Your task to perform on an android device: Open internet settings Image 0: 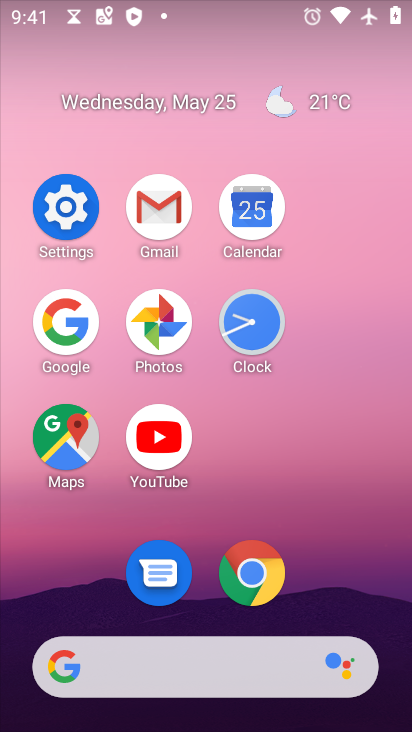
Step 0: click (69, 212)
Your task to perform on an android device: Open internet settings Image 1: 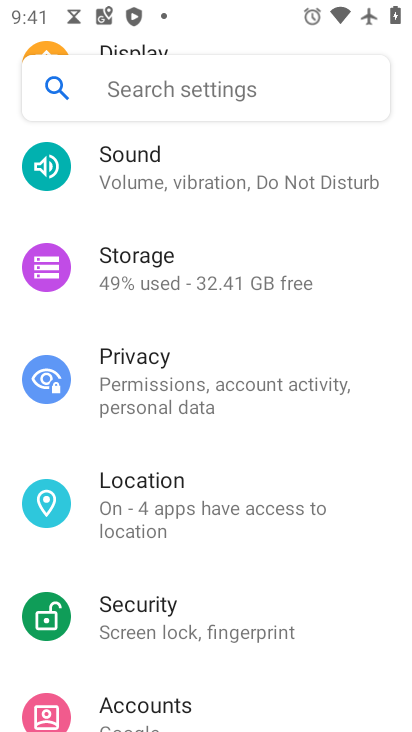
Step 1: drag from (229, 190) to (314, 577)
Your task to perform on an android device: Open internet settings Image 2: 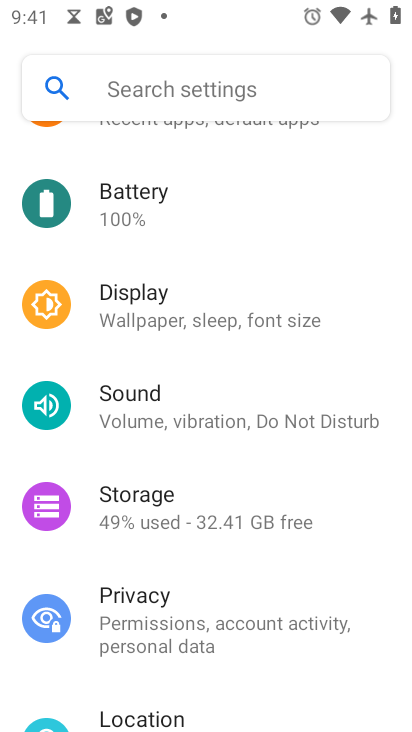
Step 2: drag from (267, 218) to (225, 649)
Your task to perform on an android device: Open internet settings Image 3: 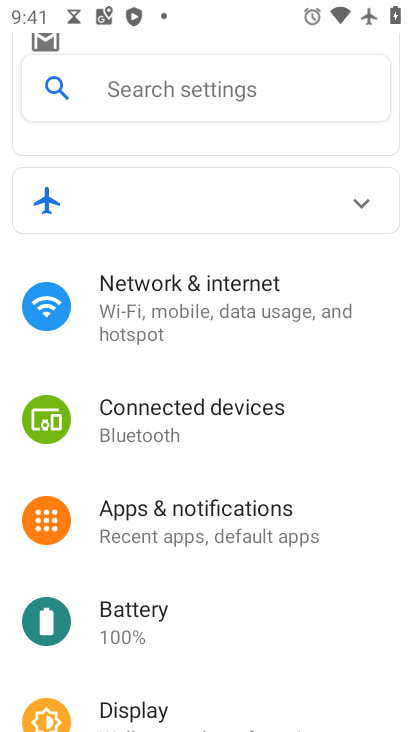
Step 3: click (280, 300)
Your task to perform on an android device: Open internet settings Image 4: 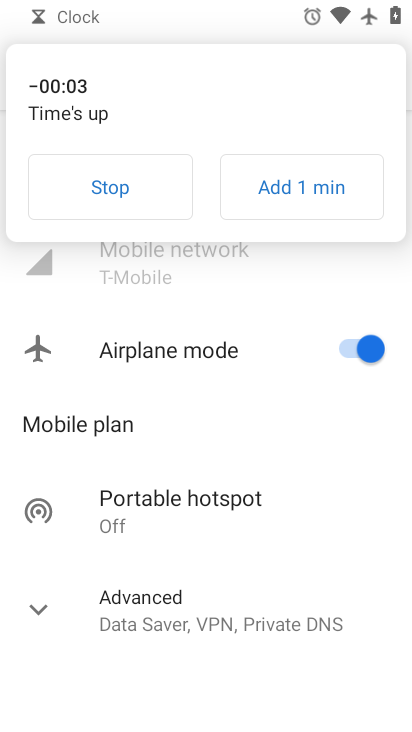
Step 4: task complete